Your task to perform on an android device: Open Google Maps Image 0: 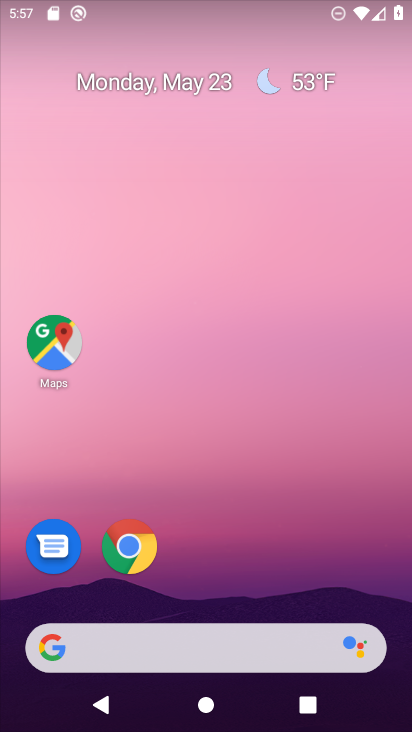
Step 0: click (68, 334)
Your task to perform on an android device: Open Google Maps Image 1: 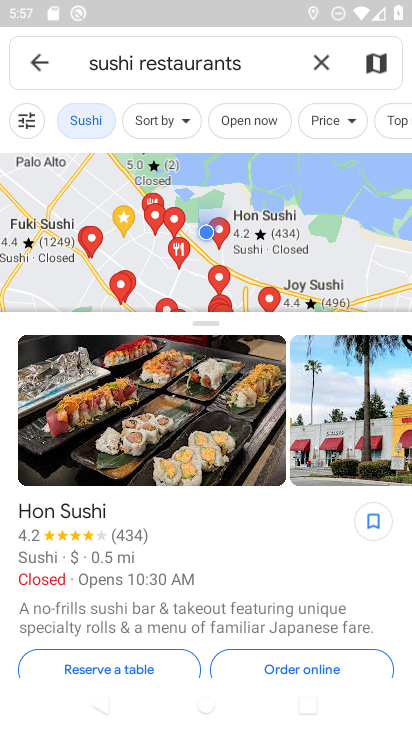
Step 1: task complete